Your task to perform on an android device: Go to accessibility settings Image 0: 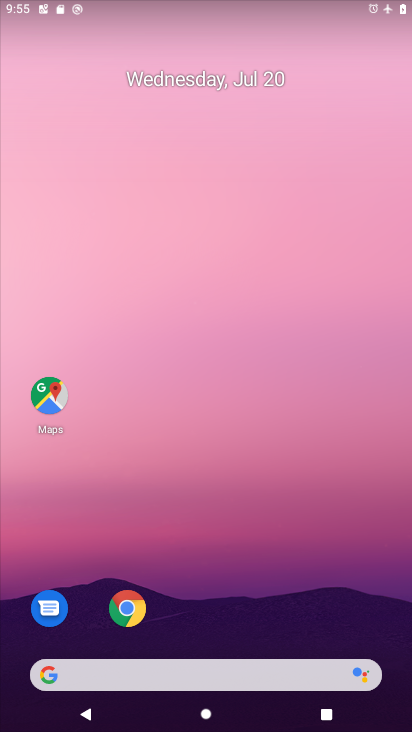
Step 0: drag from (220, 609) to (274, 56)
Your task to perform on an android device: Go to accessibility settings Image 1: 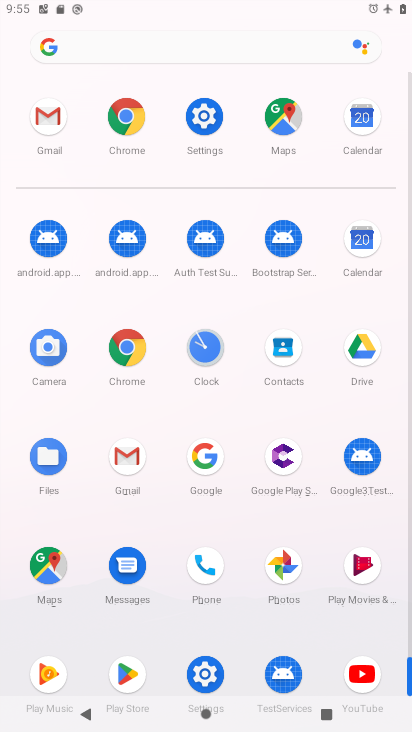
Step 1: click (218, 107)
Your task to perform on an android device: Go to accessibility settings Image 2: 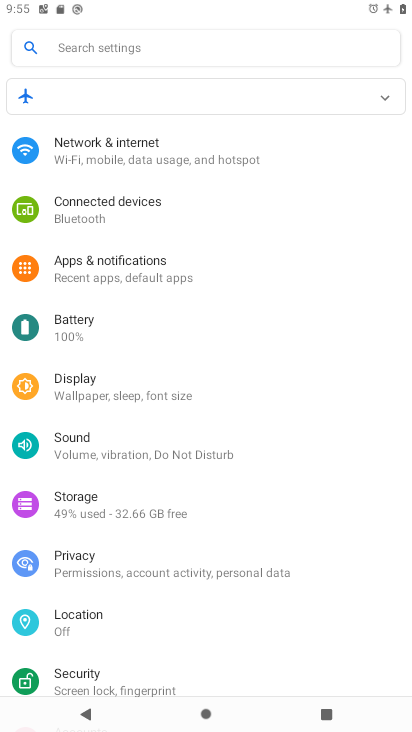
Step 2: drag from (142, 614) to (213, 229)
Your task to perform on an android device: Go to accessibility settings Image 3: 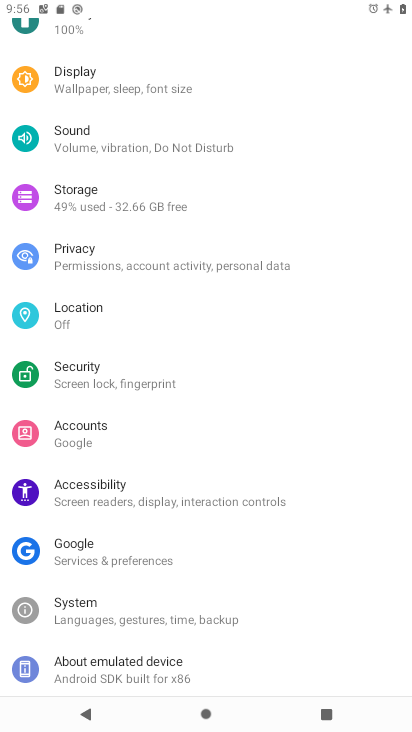
Step 3: click (176, 487)
Your task to perform on an android device: Go to accessibility settings Image 4: 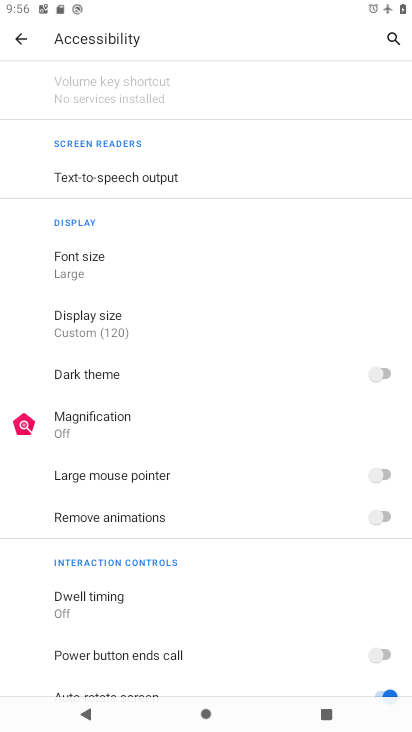
Step 4: task complete